Your task to perform on an android device: toggle airplane mode Image 0: 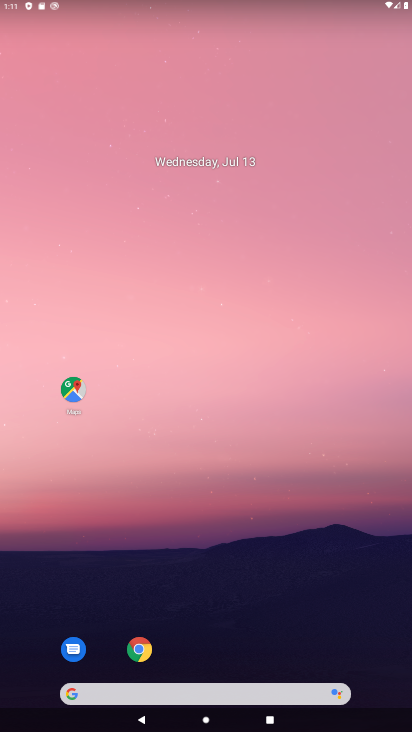
Step 0: drag from (185, 676) to (218, 154)
Your task to perform on an android device: toggle airplane mode Image 1: 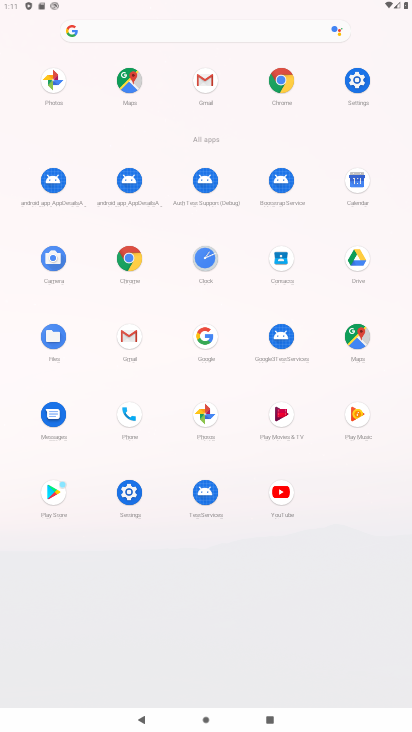
Step 1: click (137, 491)
Your task to perform on an android device: toggle airplane mode Image 2: 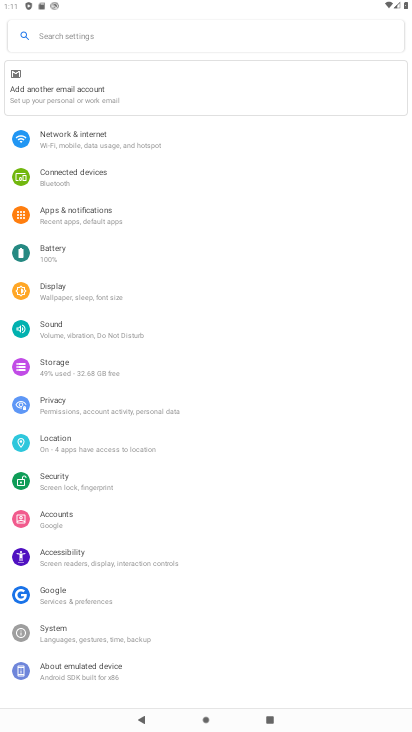
Step 2: click (158, 138)
Your task to perform on an android device: toggle airplane mode Image 3: 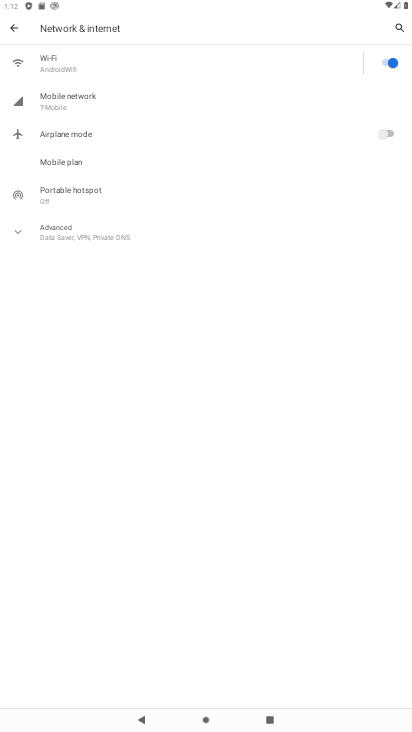
Step 3: click (389, 133)
Your task to perform on an android device: toggle airplane mode Image 4: 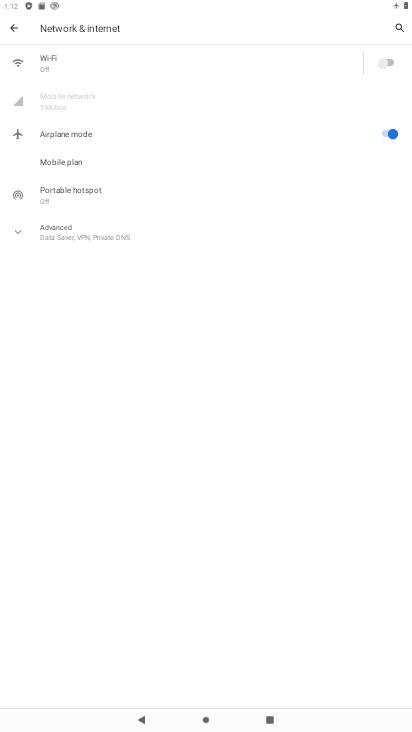
Step 4: task complete